Your task to perform on an android device: Open Reddit.com Image 0: 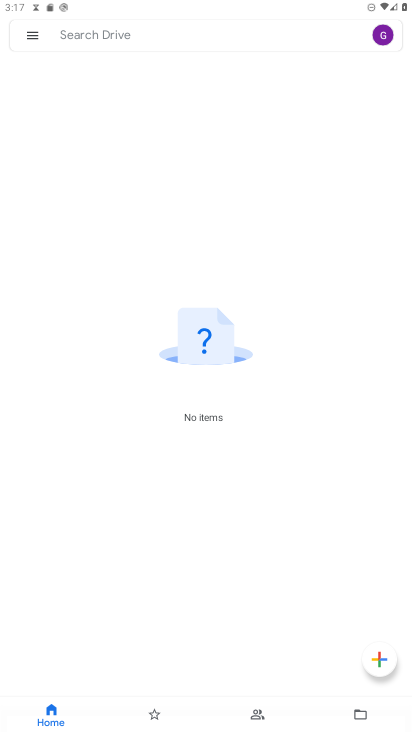
Step 0: press home button
Your task to perform on an android device: Open Reddit.com Image 1: 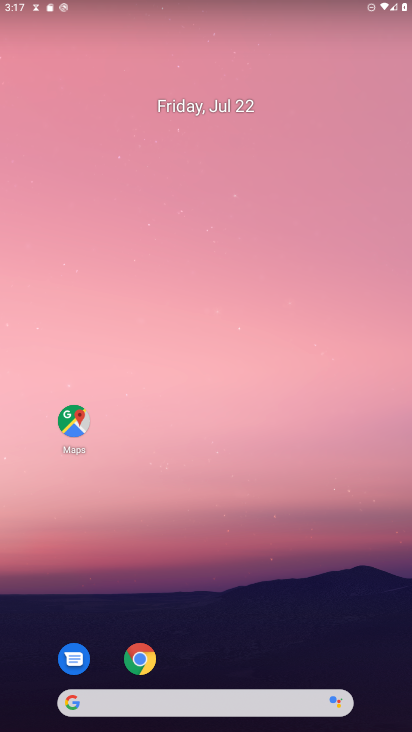
Step 1: drag from (346, 518) to (280, 45)
Your task to perform on an android device: Open Reddit.com Image 2: 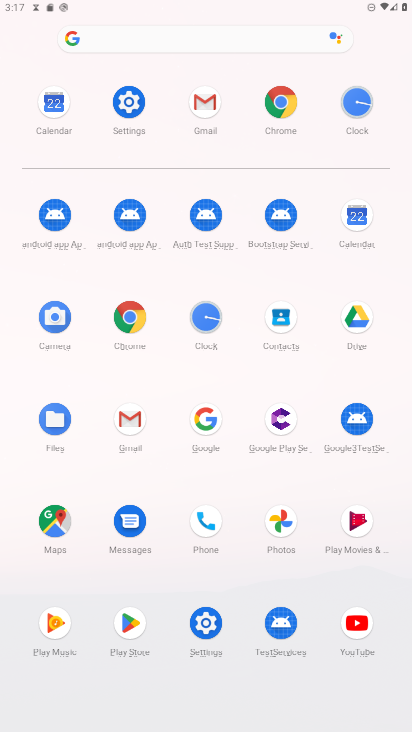
Step 2: click (120, 321)
Your task to perform on an android device: Open Reddit.com Image 3: 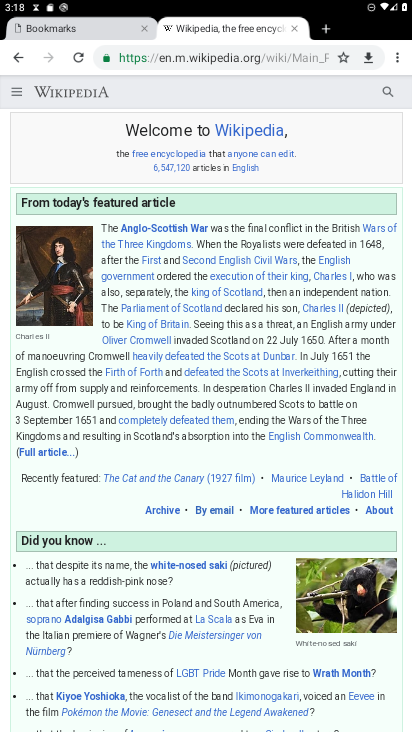
Step 3: click (235, 33)
Your task to perform on an android device: Open Reddit.com Image 4: 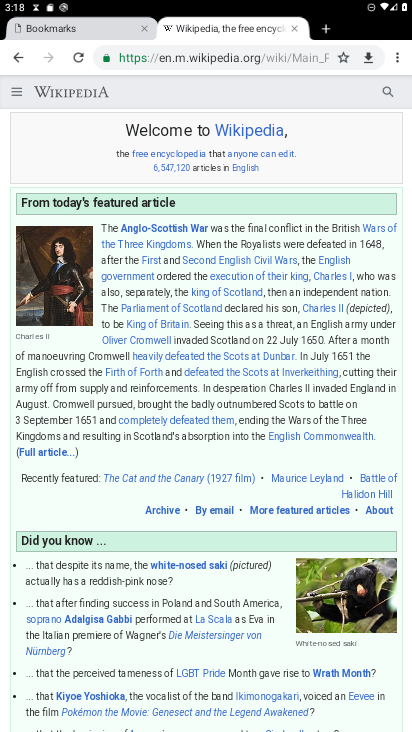
Step 4: click (271, 22)
Your task to perform on an android device: Open Reddit.com Image 5: 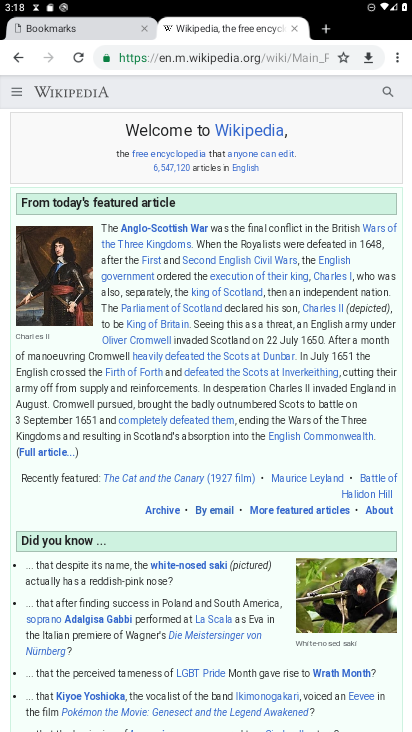
Step 5: click (16, 50)
Your task to perform on an android device: Open Reddit.com Image 6: 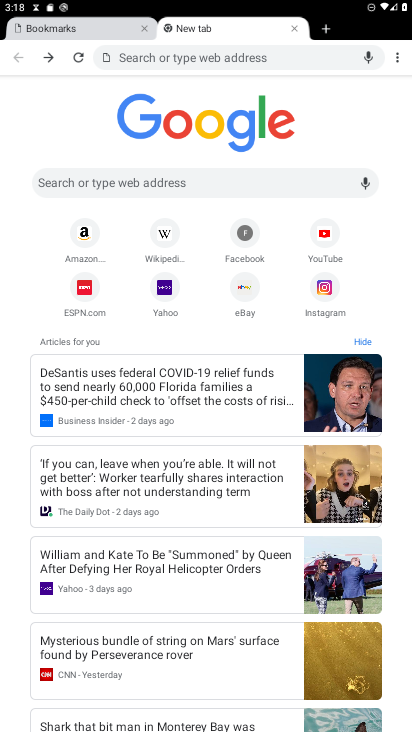
Step 6: click (122, 171)
Your task to perform on an android device: Open Reddit.com Image 7: 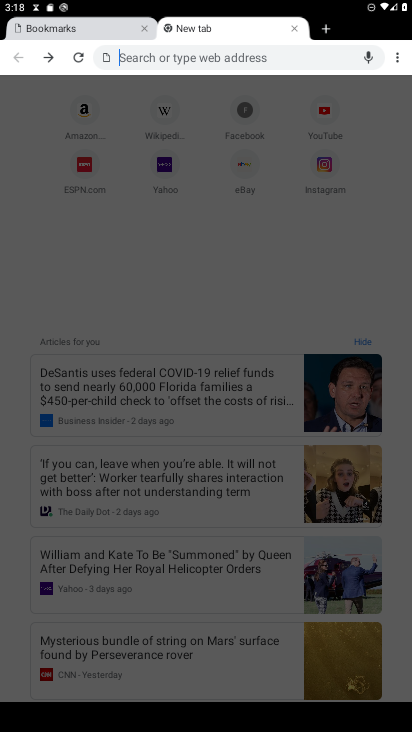
Step 7: type "Reddit.com"
Your task to perform on an android device: Open Reddit.com Image 8: 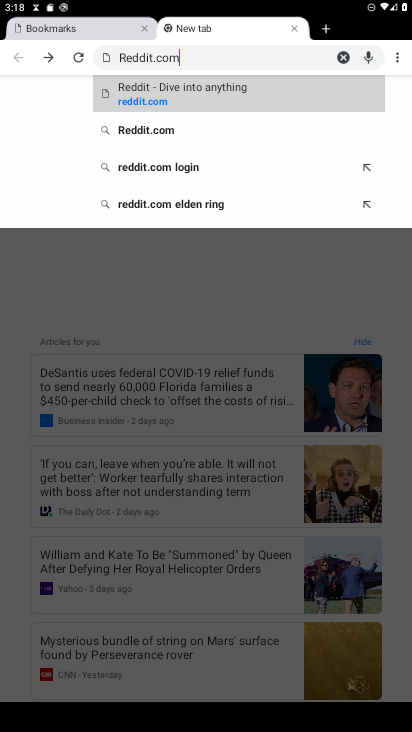
Step 8: click (168, 107)
Your task to perform on an android device: Open Reddit.com Image 9: 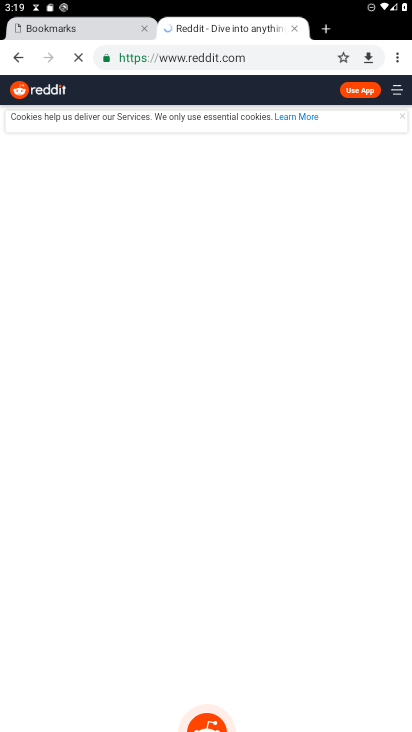
Step 9: task complete